Your task to perform on an android device: Go to Amazon Image 0: 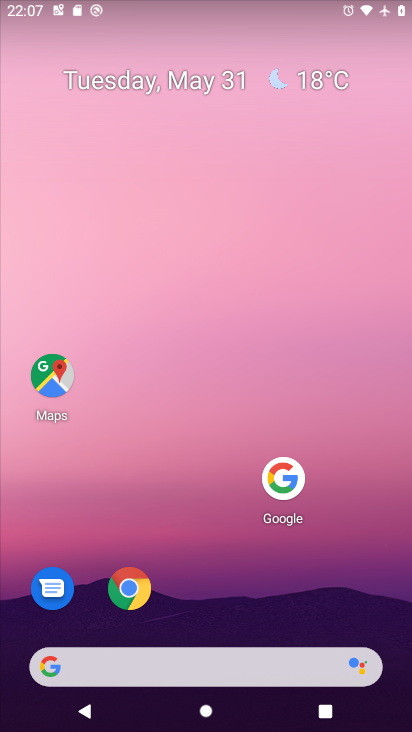
Step 0: press home button
Your task to perform on an android device: Go to Amazon Image 1: 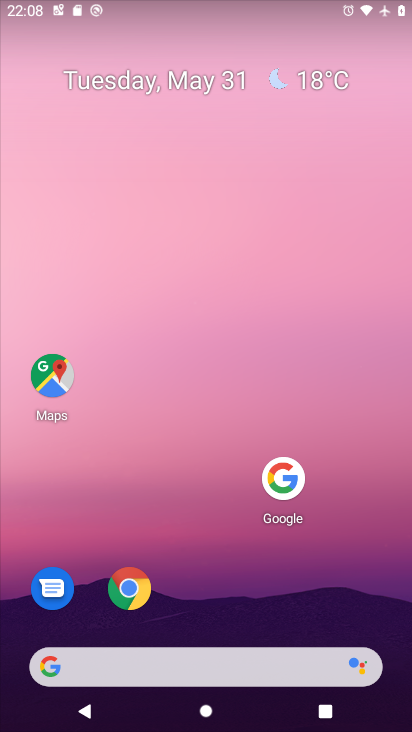
Step 1: click (136, 601)
Your task to perform on an android device: Go to Amazon Image 2: 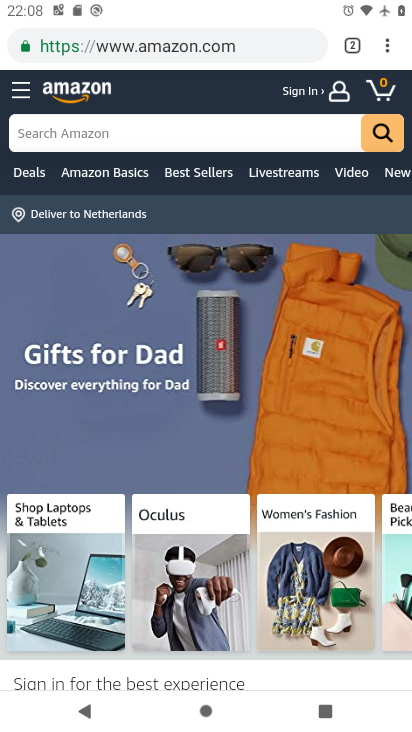
Step 2: task complete